Your task to perform on an android device: What's the news in Brazil? Image 0: 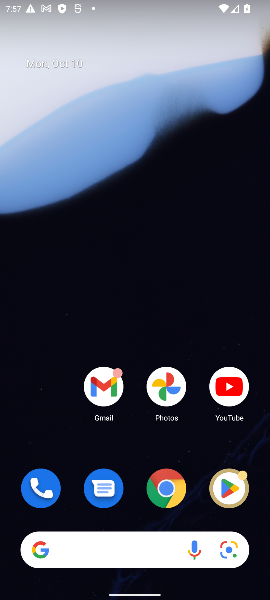
Step 0: click (168, 489)
Your task to perform on an android device: What's the news in Brazil? Image 1: 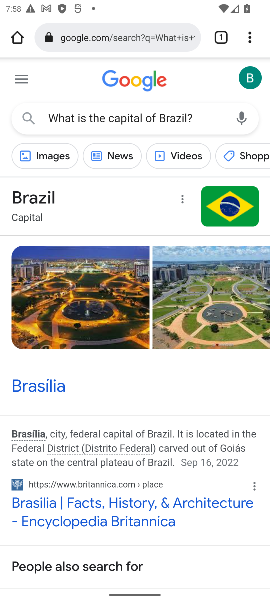
Step 1: task complete